Your task to perform on an android device: Go to notification settings Image 0: 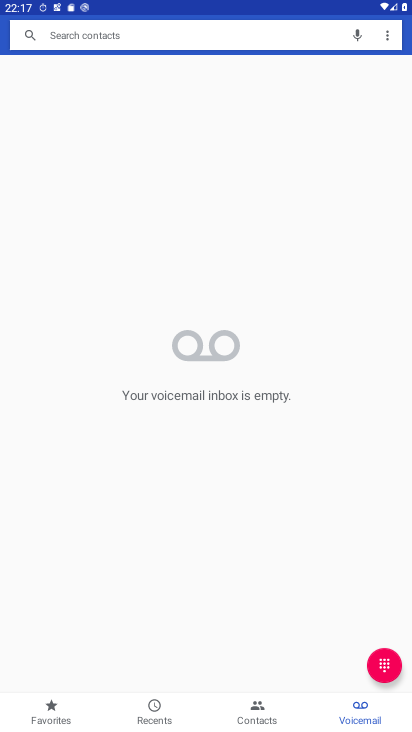
Step 0: press home button
Your task to perform on an android device: Go to notification settings Image 1: 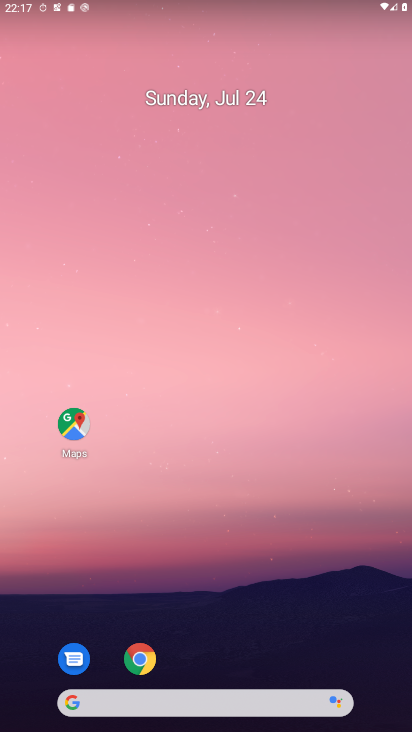
Step 1: drag from (206, 726) to (203, 272)
Your task to perform on an android device: Go to notification settings Image 2: 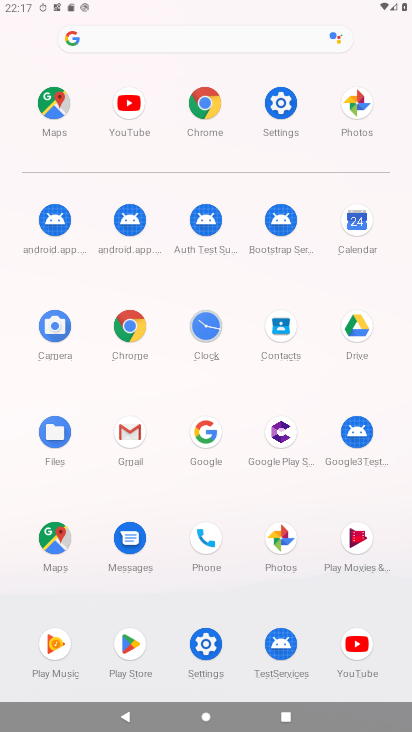
Step 2: click (281, 102)
Your task to perform on an android device: Go to notification settings Image 3: 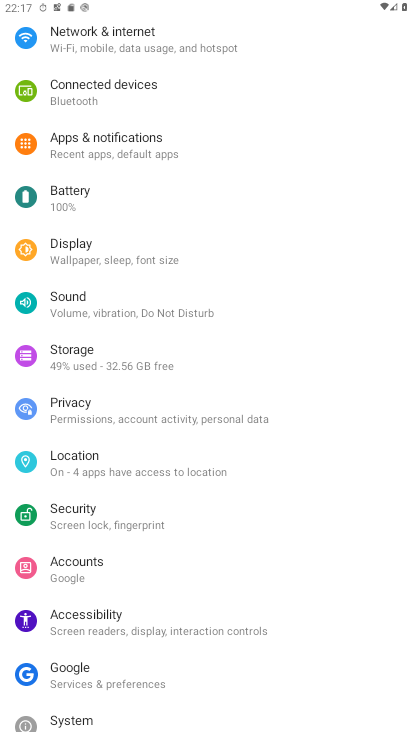
Step 3: click (132, 142)
Your task to perform on an android device: Go to notification settings Image 4: 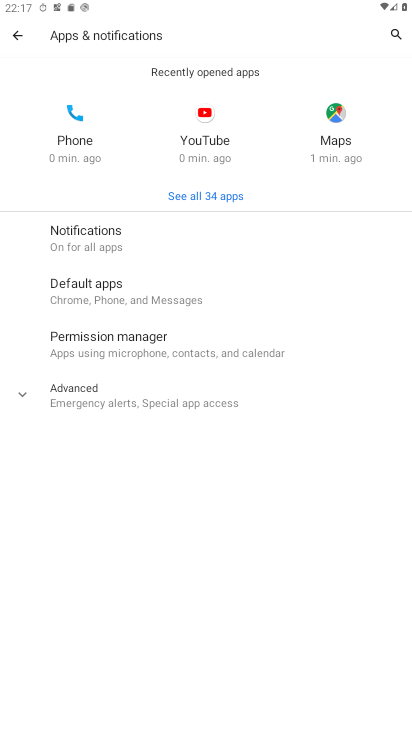
Step 4: click (102, 236)
Your task to perform on an android device: Go to notification settings Image 5: 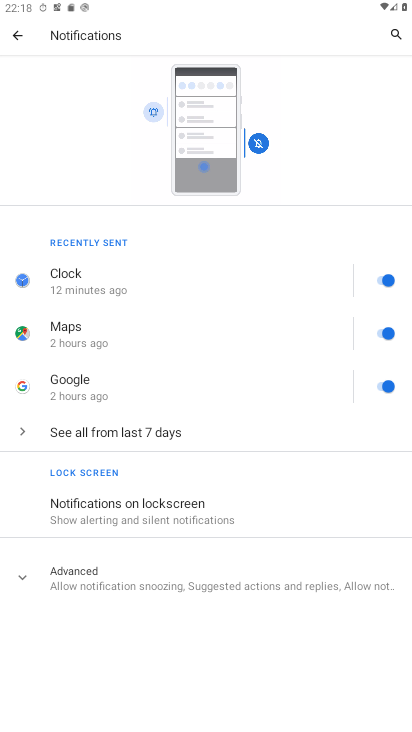
Step 5: task complete